Your task to perform on an android device: Open Google Maps and go to "Timeline" Image 0: 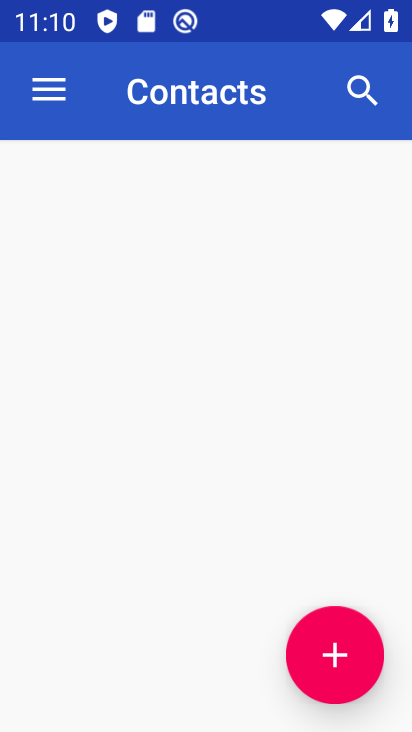
Step 0: press home button
Your task to perform on an android device: Open Google Maps and go to "Timeline" Image 1: 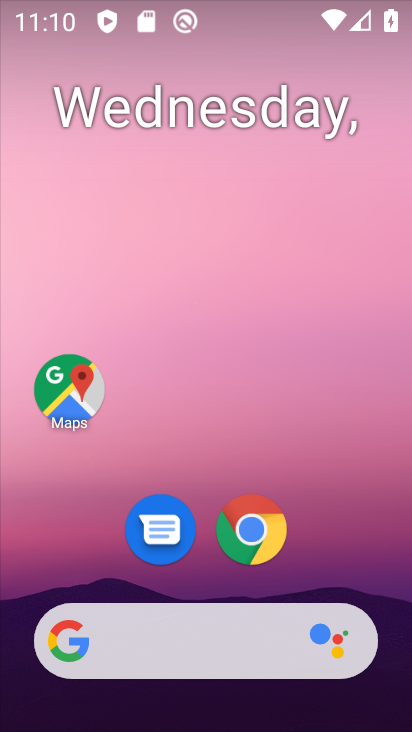
Step 1: drag from (193, 588) to (268, 104)
Your task to perform on an android device: Open Google Maps and go to "Timeline" Image 2: 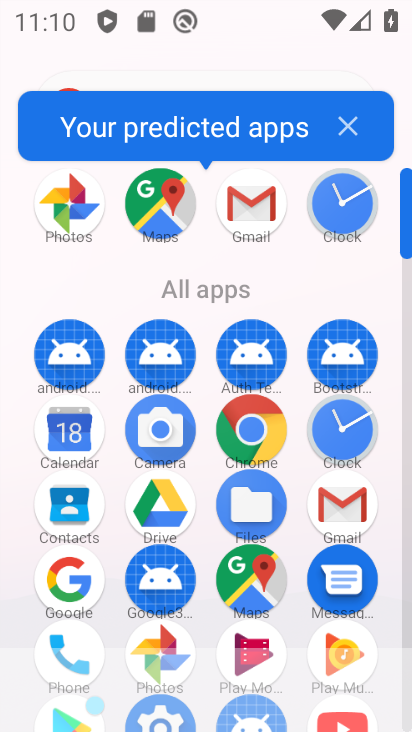
Step 2: click (248, 579)
Your task to perform on an android device: Open Google Maps and go to "Timeline" Image 3: 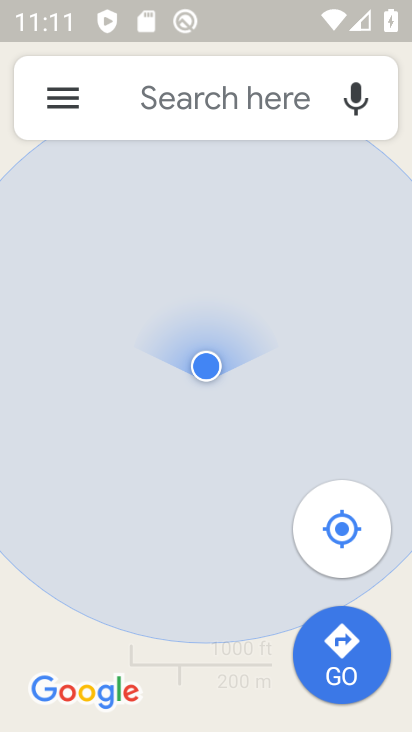
Step 3: click (40, 104)
Your task to perform on an android device: Open Google Maps and go to "Timeline" Image 4: 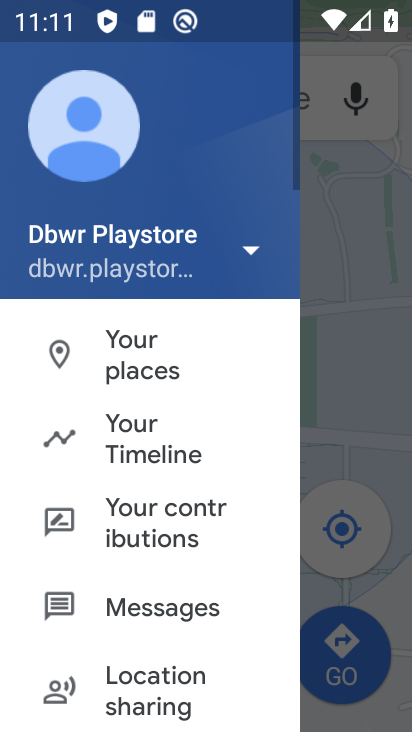
Step 4: click (131, 457)
Your task to perform on an android device: Open Google Maps and go to "Timeline" Image 5: 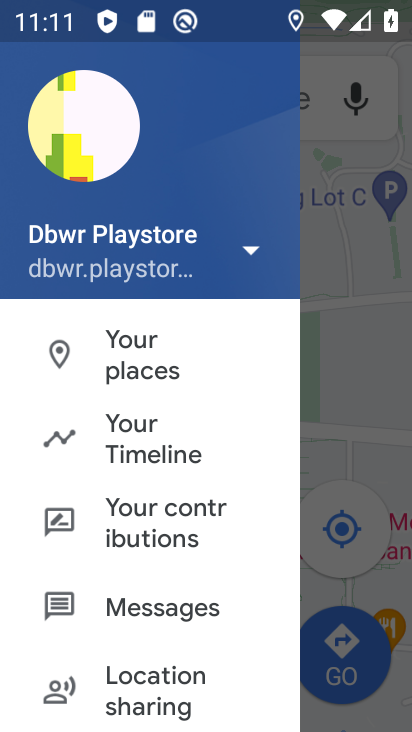
Step 5: click (134, 448)
Your task to perform on an android device: Open Google Maps and go to "Timeline" Image 6: 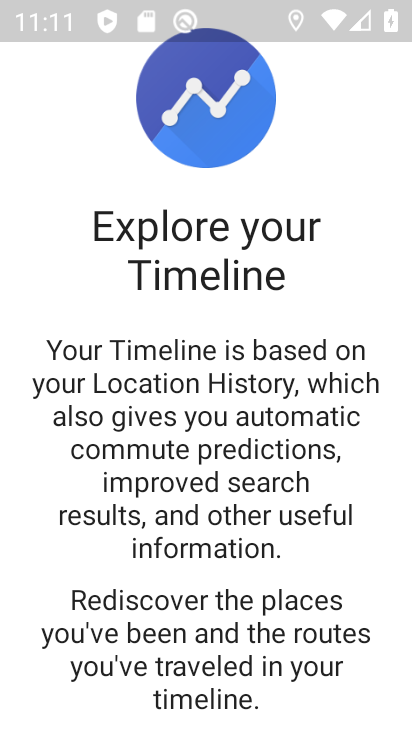
Step 6: task complete